Your task to perform on an android device: Search for seafood restaurants on Google Maps Image 0: 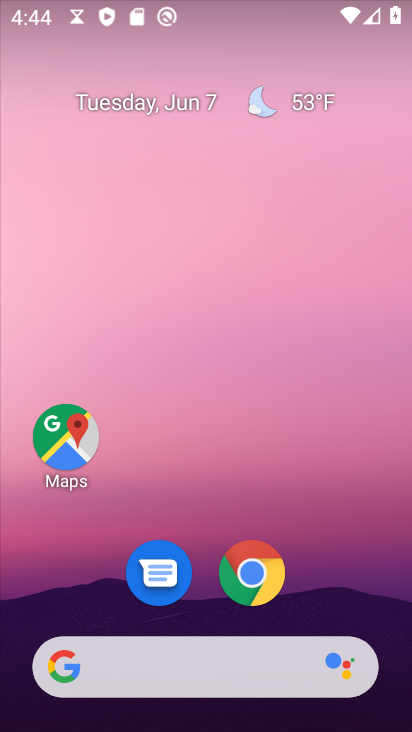
Step 0: click (66, 436)
Your task to perform on an android device: Search for seafood restaurants on Google Maps Image 1: 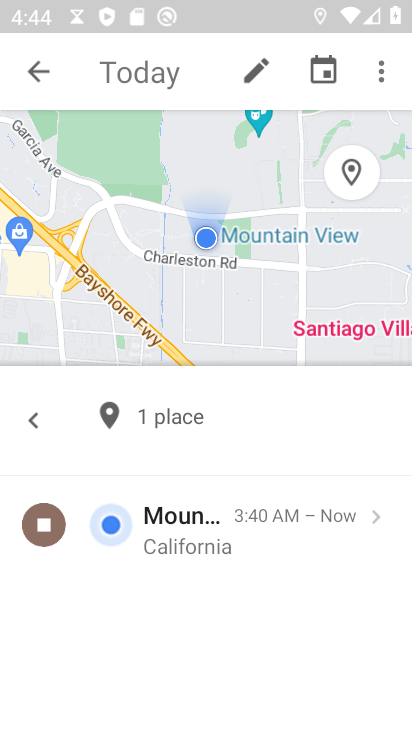
Step 1: click (27, 66)
Your task to perform on an android device: Search for seafood restaurants on Google Maps Image 2: 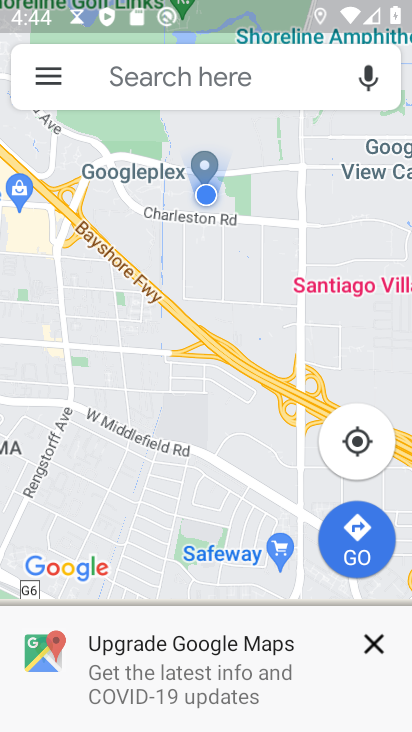
Step 2: click (148, 69)
Your task to perform on an android device: Search for seafood restaurants on Google Maps Image 3: 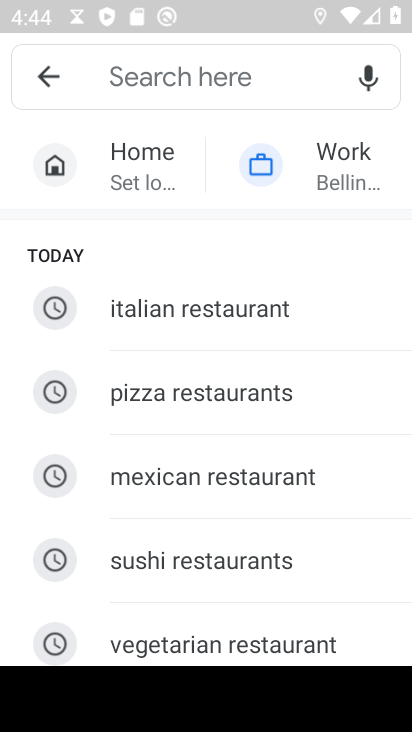
Step 3: drag from (157, 645) to (145, 285)
Your task to perform on an android device: Search for seafood restaurants on Google Maps Image 4: 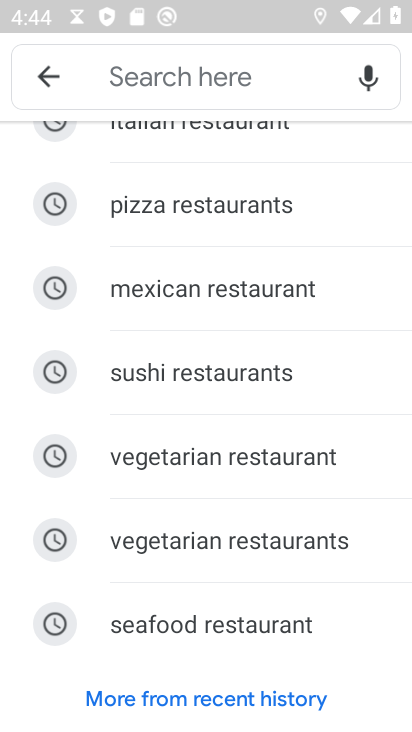
Step 4: click (163, 624)
Your task to perform on an android device: Search for seafood restaurants on Google Maps Image 5: 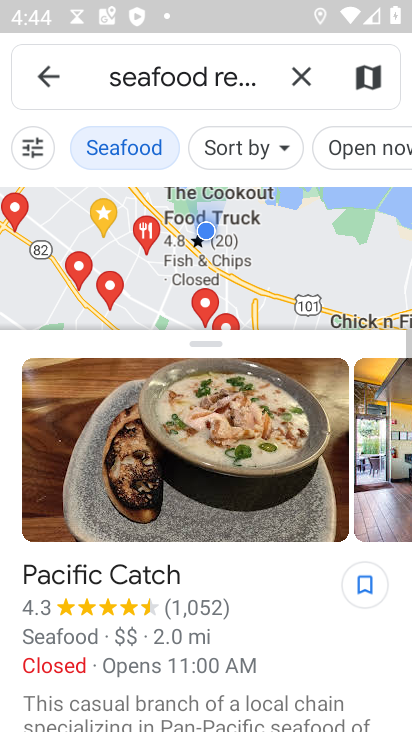
Step 5: task complete